Your task to perform on an android device: star an email in the gmail app Image 0: 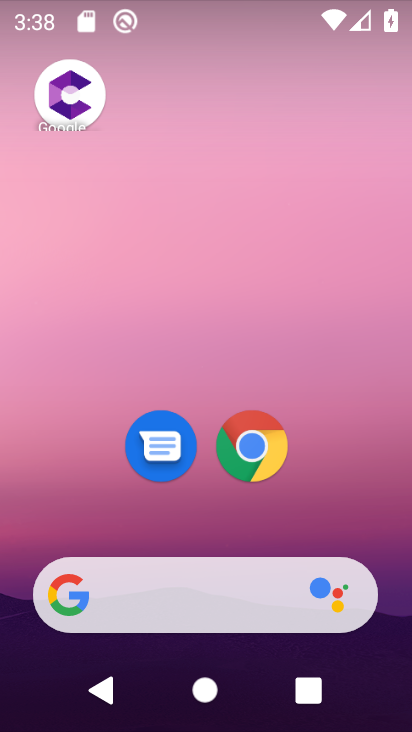
Step 0: drag from (259, 478) to (370, 16)
Your task to perform on an android device: star an email in the gmail app Image 1: 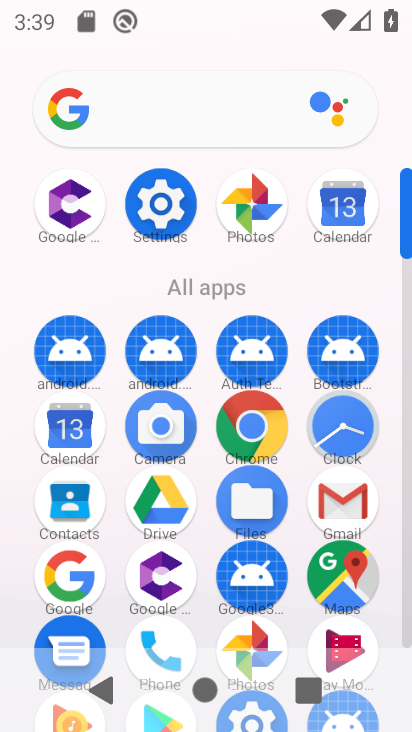
Step 1: click (346, 479)
Your task to perform on an android device: star an email in the gmail app Image 2: 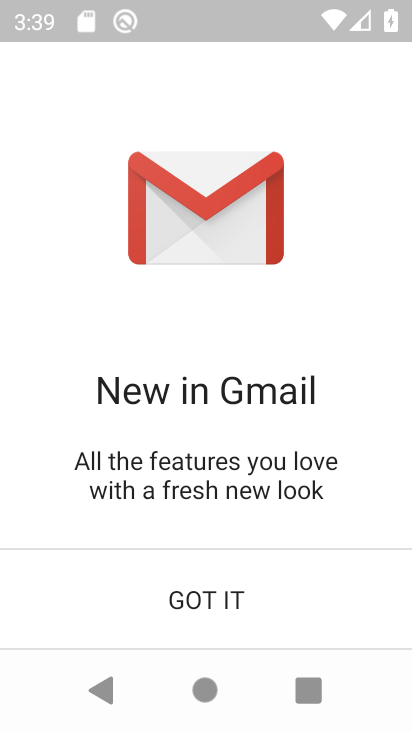
Step 2: click (317, 567)
Your task to perform on an android device: star an email in the gmail app Image 3: 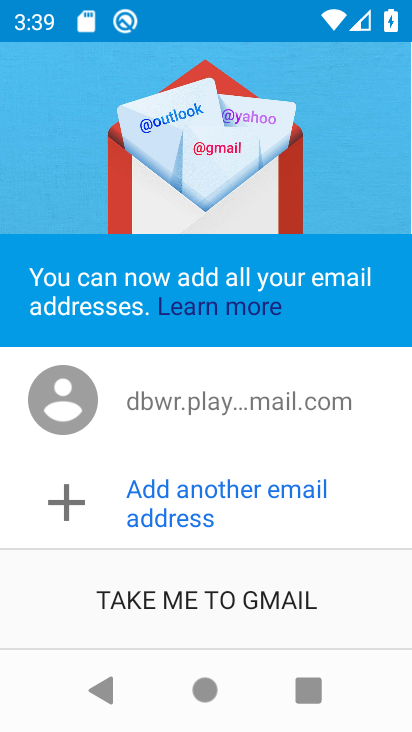
Step 3: click (245, 601)
Your task to perform on an android device: star an email in the gmail app Image 4: 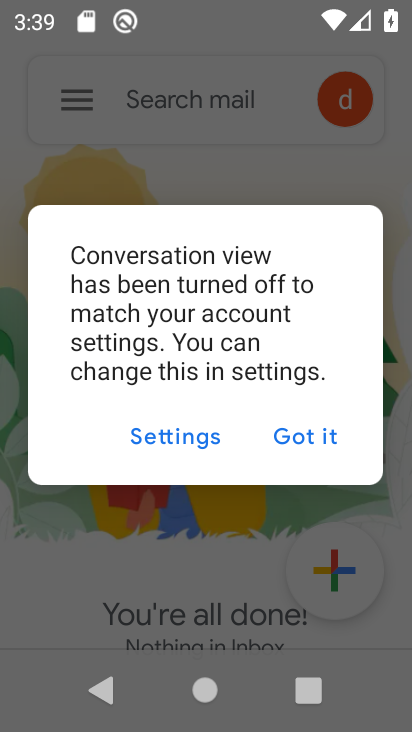
Step 4: click (335, 439)
Your task to perform on an android device: star an email in the gmail app Image 5: 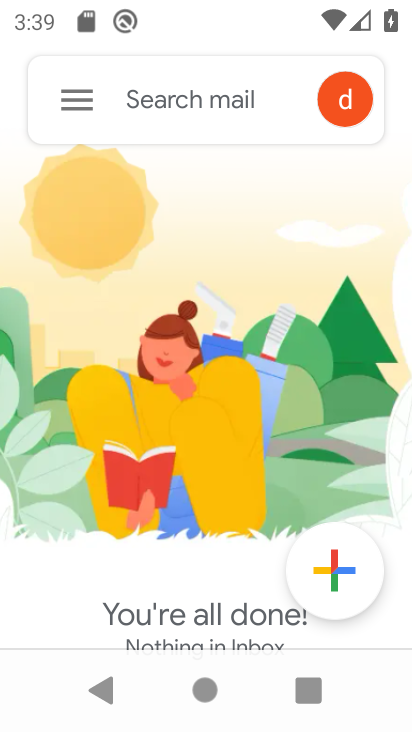
Step 5: click (65, 100)
Your task to perform on an android device: star an email in the gmail app Image 6: 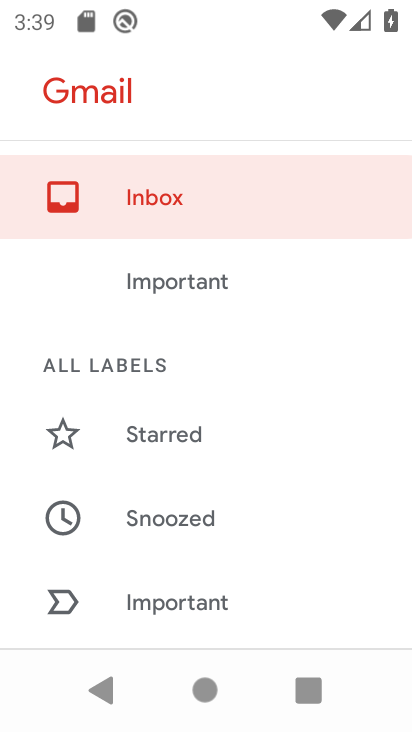
Step 6: drag from (195, 578) to (323, 80)
Your task to perform on an android device: star an email in the gmail app Image 7: 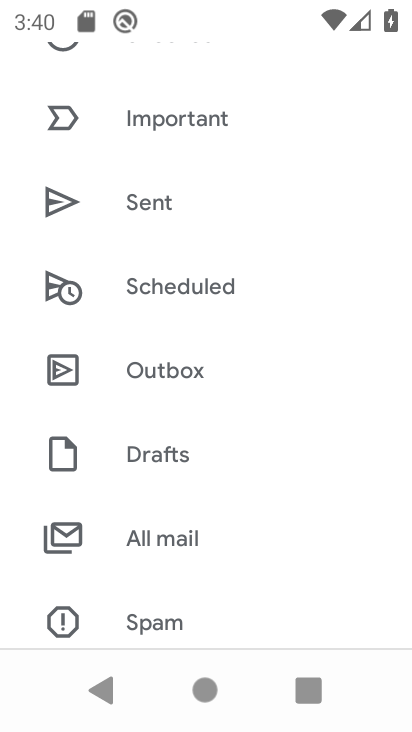
Step 7: click (201, 526)
Your task to perform on an android device: star an email in the gmail app Image 8: 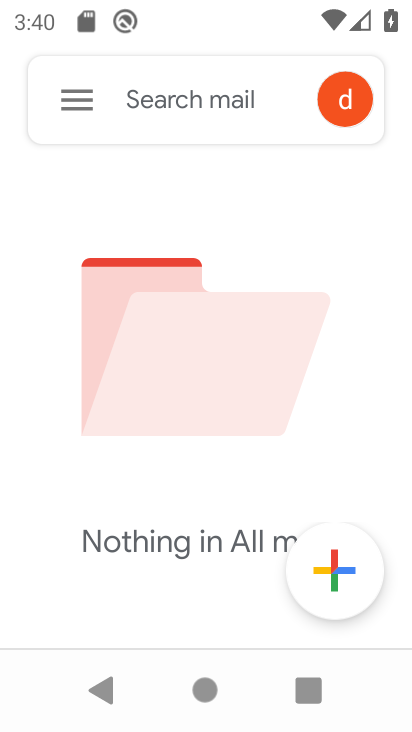
Step 8: task complete